Your task to perform on an android device: turn on data saver in the chrome app Image 0: 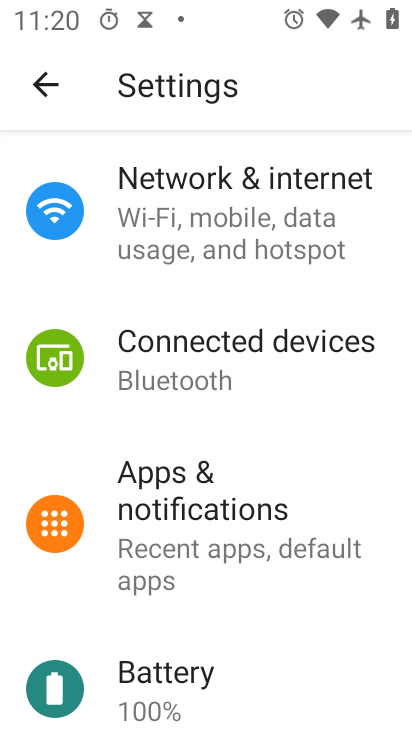
Step 0: press home button
Your task to perform on an android device: turn on data saver in the chrome app Image 1: 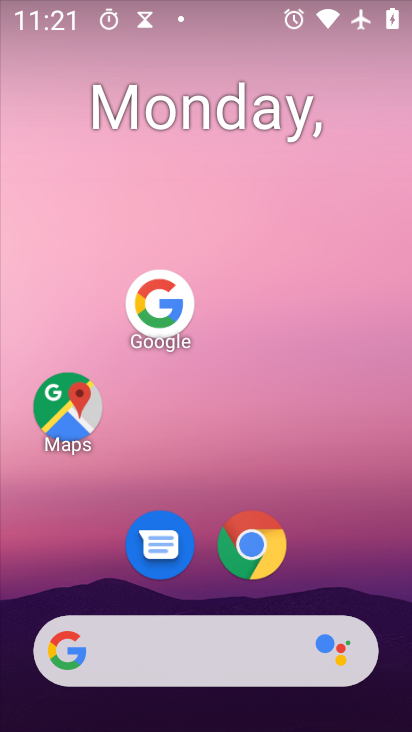
Step 1: click (247, 547)
Your task to perform on an android device: turn on data saver in the chrome app Image 2: 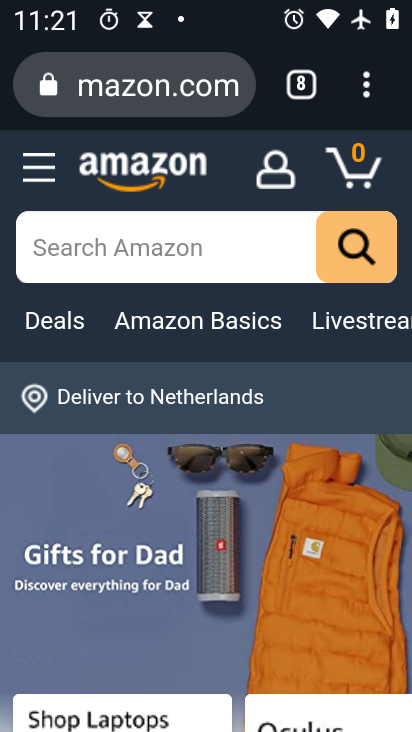
Step 2: drag from (373, 93) to (172, 579)
Your task to perform on an android device: turn on data saver in the chrome app Image 3: 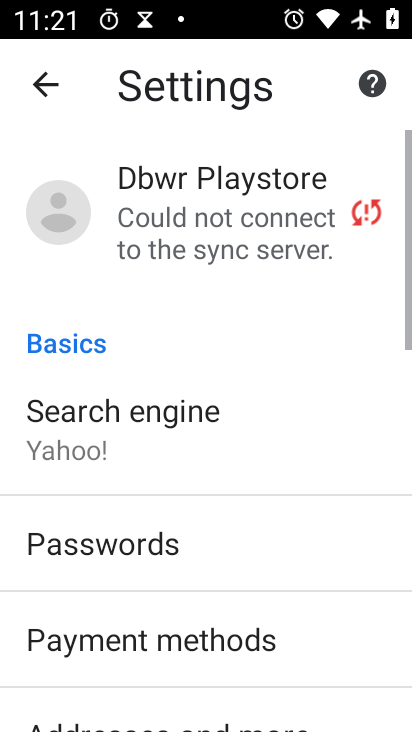
Step 3: drag from (184, 680) to (323, 0)
Your task to perform on an android device: turn on data saver in the chrome app Image 4: 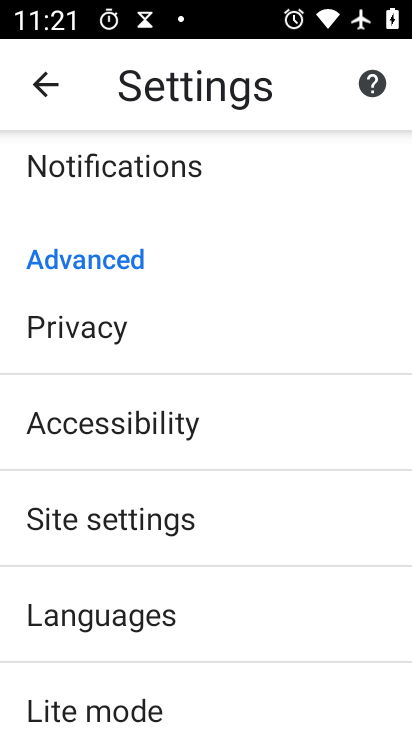
Step 4: drag from (175, 651) to (235, 327)
Your task to perform on an android device: turn on data saver in the chrome app Image 5: 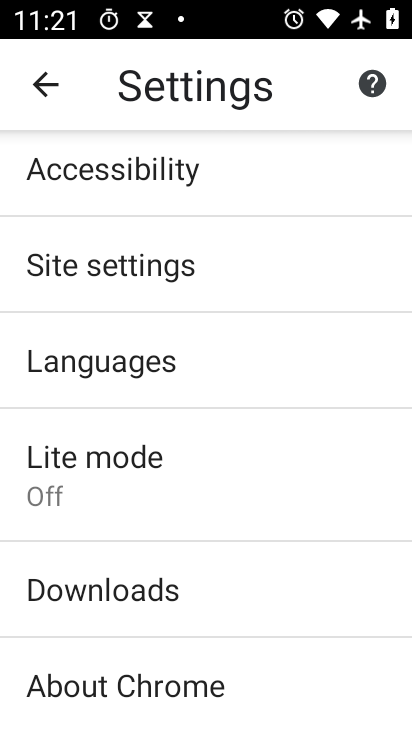
Step 5: click (91, 468)
Your task to perform on an android device: turn on data saver in the chrome app Image 6: 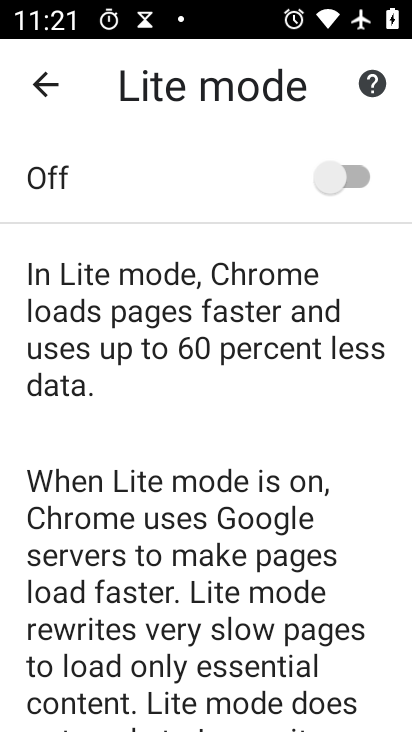
Step 6: click (362, 177)
Your task to perform on an android device: turn on data saver in the chrome app Image 7: 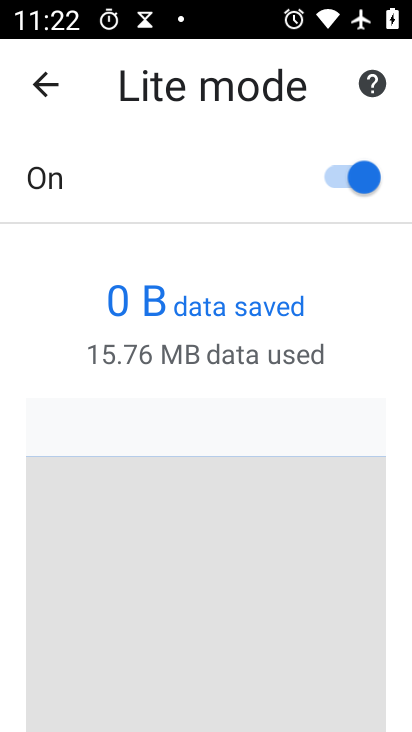
Step 7: task complete